Your task to perform on an android device: Open display settings Image 0: 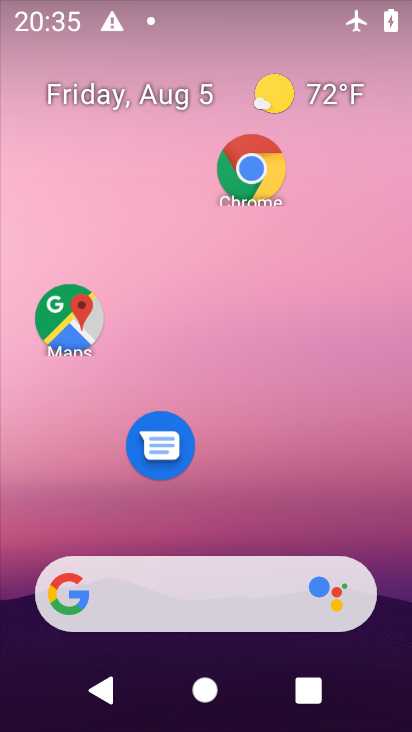
Step 0: drag from (230, 491) to (230, 186)
Your task to perform on an android device: Open display settings Image 1: 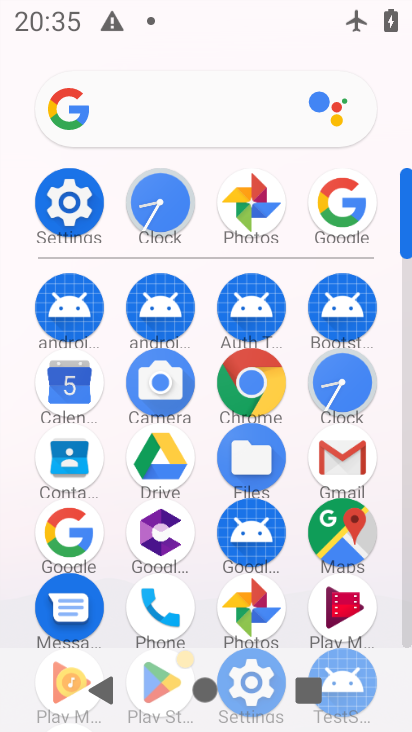
Step 1: click (84, 211)
Your task to perform on an android device: Open display settings Image 2: 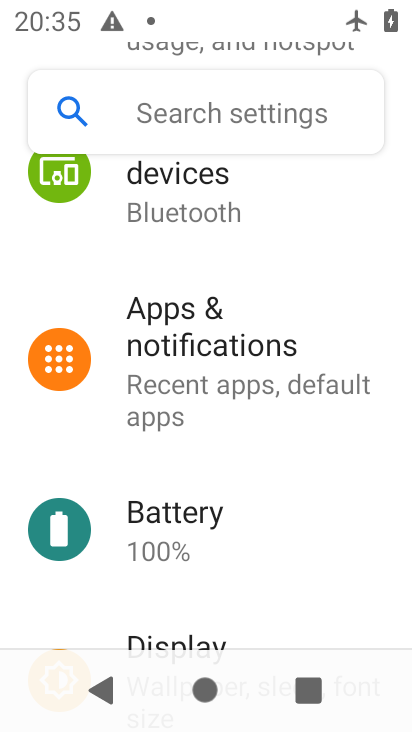
Step 2: drag from (211, 594) to (238, 329)
Your task to perform on an android device: Open display settings Image 3: 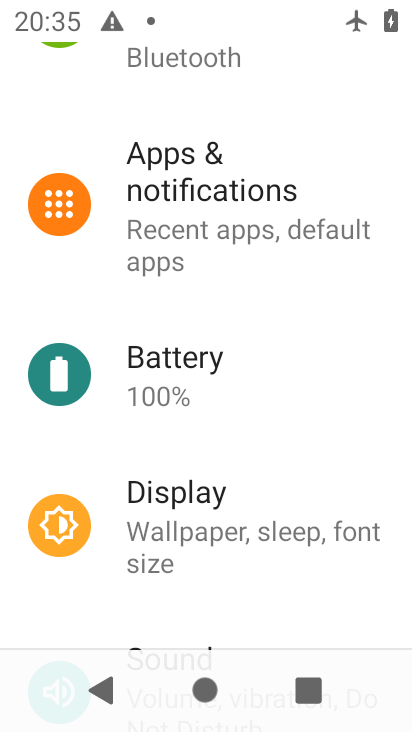
Step 3: click (268, 526)
Your task to perform on an android device: Open display settings Image 4: 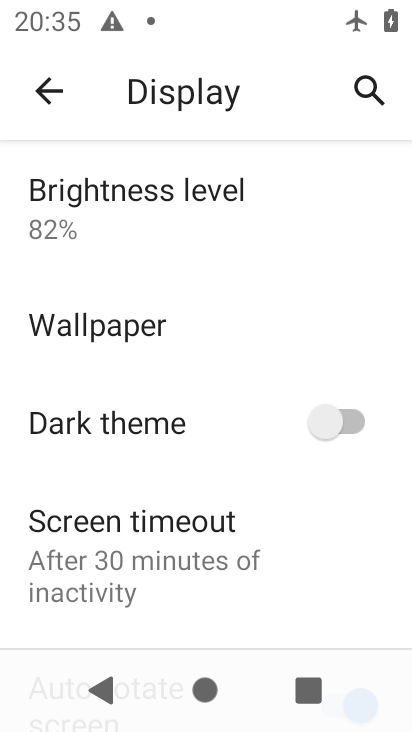
Step 4: task complete